Your task to perform on an android device: Go to Google maps Image 0: 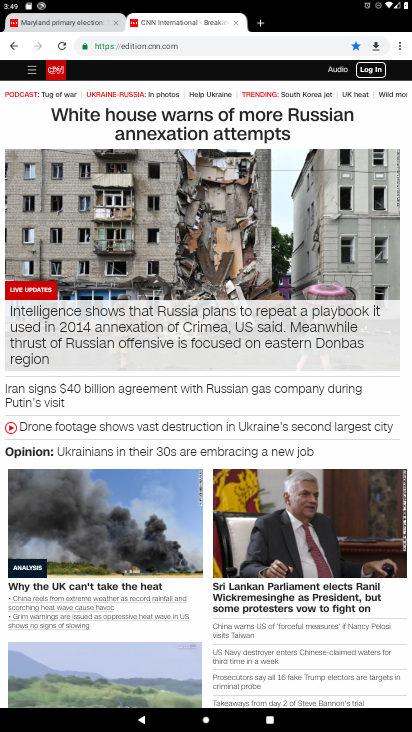
Step 0: press home button
Your task to perform on an android device: Go to Google maps Image 1: 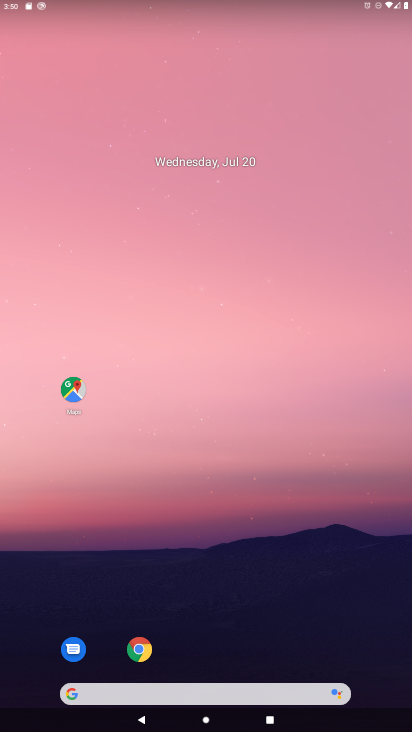
Step 1: click (74, 388)
Your task to perform on an android device: Go to Google maps Image 2: 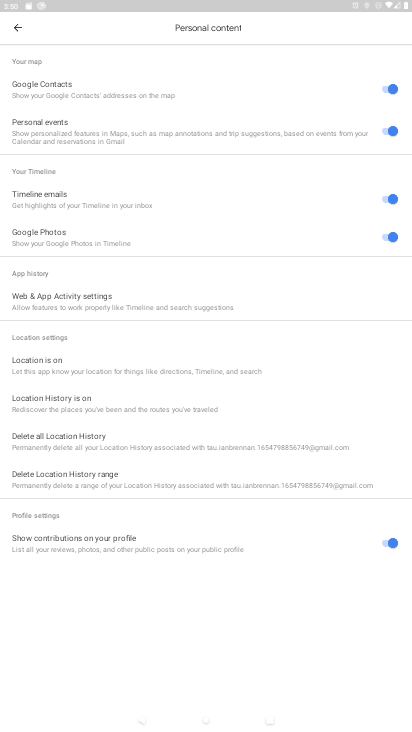
Step 2: task complete